Your task to perform on an android device: Open my contact list Image 0: 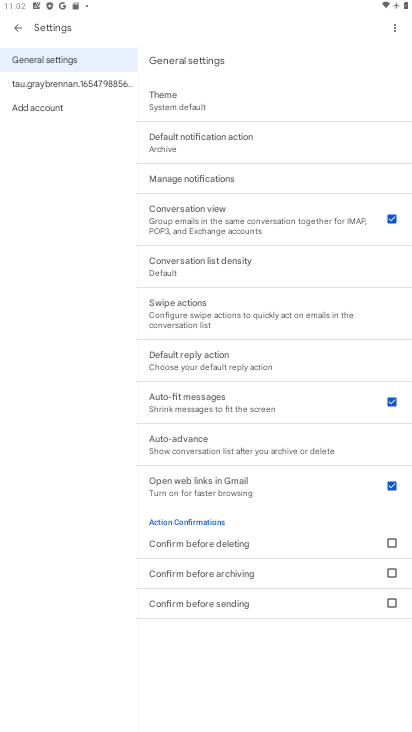
Step 0: press home button
Your task to perform on an android device: Open my contact list Image 1: 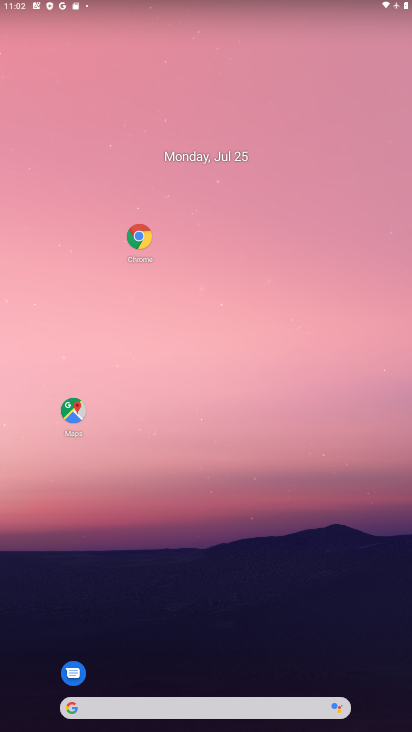
Step 1: drag from (266, 655) to (248, 223)
Your task to perform on an android device: Open my contact list Image 2: 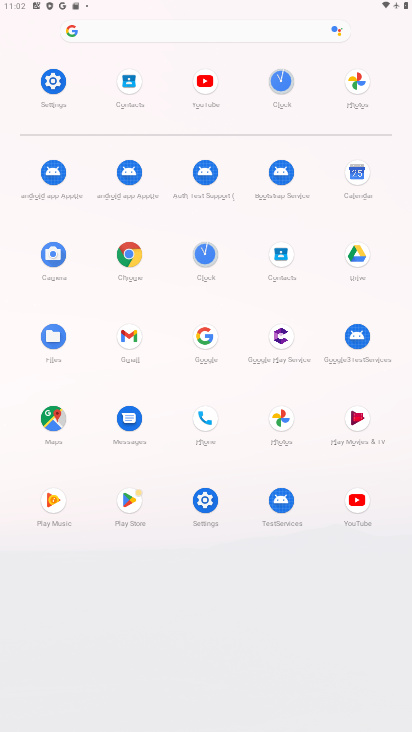
Step 2: click (117, 107)
Your task to perform on an android device: Open my contact list Image 3: 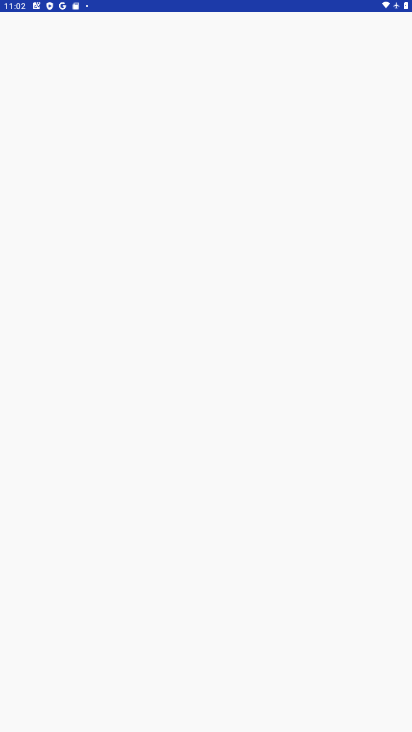
Step 3: task complete